Your task to perform on an android device: toggle notification dots Image 0: 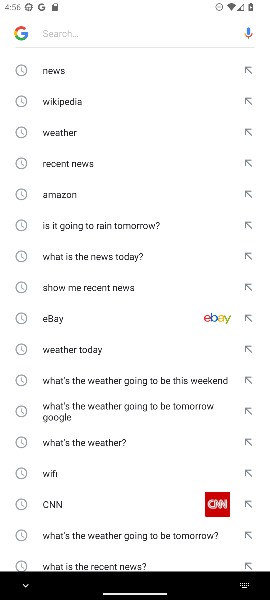
Step 0: drag from (103, 397) to (181, 577)
Your task to perform on an android device: toggle notification dots Image 1: 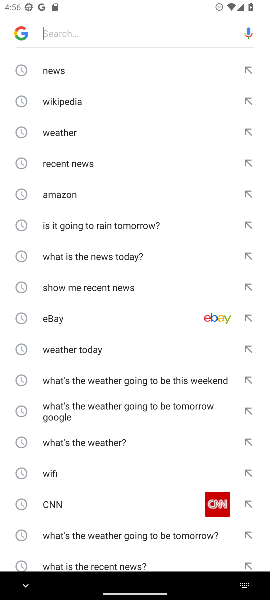
Step 1: press home button
Your task to perform on an android device: toggle notification dots Image 2: 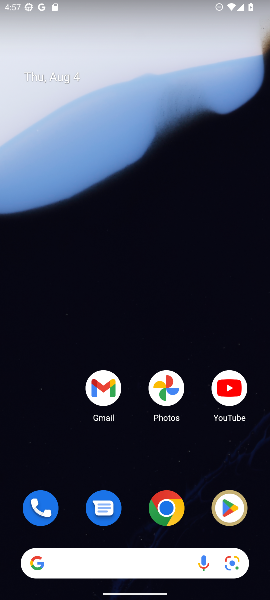
Step 2: drag from (64, 456) to (180, 0)
Your task to perform on an android device: toggle notification dots Image 3: 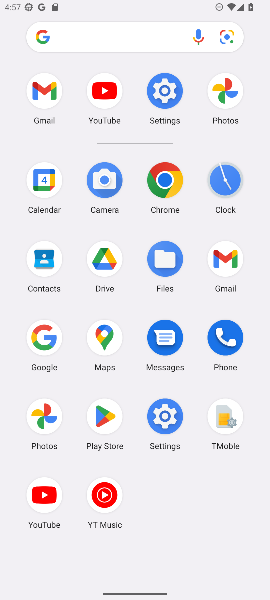
Step 3: click (163, 84)
Your task to perform on an android device: toggle notification dots Image 4: 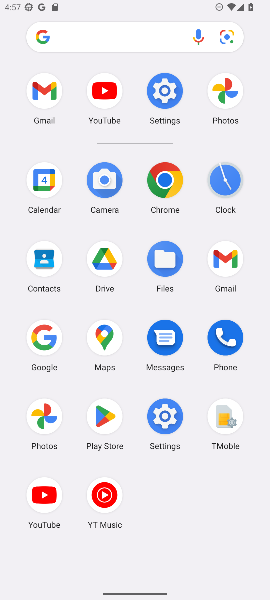
Step 4: click (163, 84)
Your task to perform on an android device: toggle notification dots Image 5: 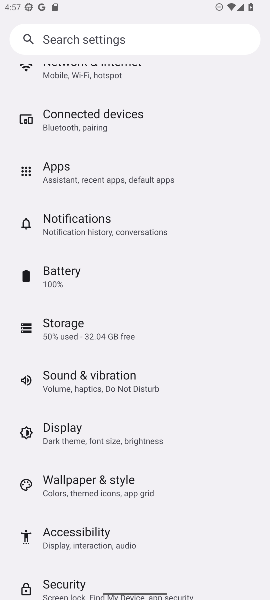
Step 5: press home button
Your task to perform on an android device: toggle notification dots Image 6: 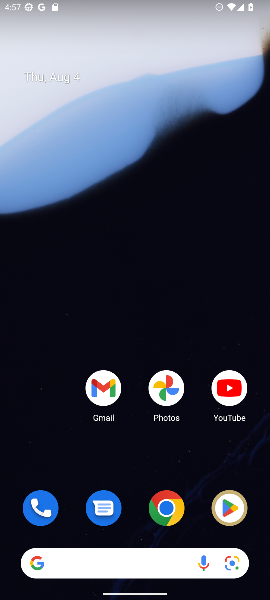
Step 6: drag from (134, 497) to (170, 96)
Your task to perform on an android device: toggle notification dots Image 7: 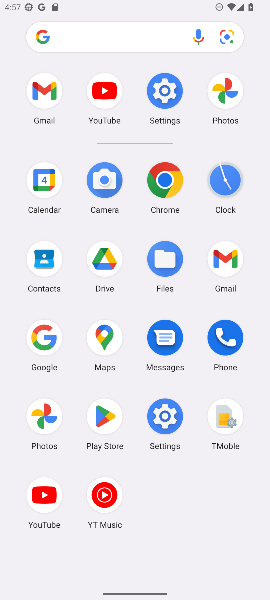
Step 7: click (161, 94)
Your task to perform on an android device: toggle notification dots Image 8: 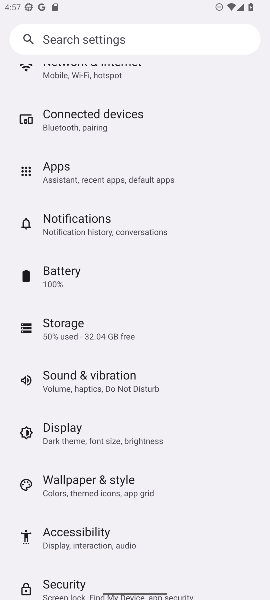
Step 8: click (100, 238)
Your task to perform on an android device: toggle notification dots Image 9: 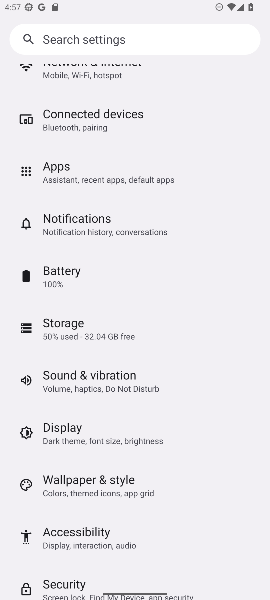
Step 9: click (98, 236)
Your task to perform on an android device: toggle notification dots Image 10: 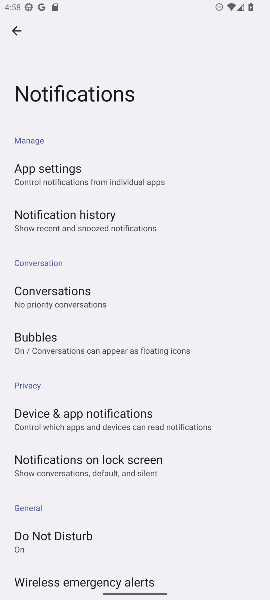
Step 10: drag from (114, 492) to (210, 130)
Your task to perform on an android device: toggle notification dots Image 11: 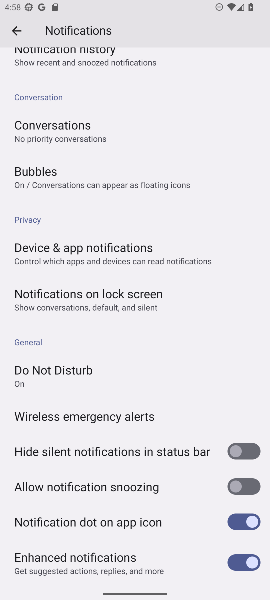
Step 11: drag from (138, 530) to (180, 315)
Your task to perform on an android device: toggle notification dots Image 12: 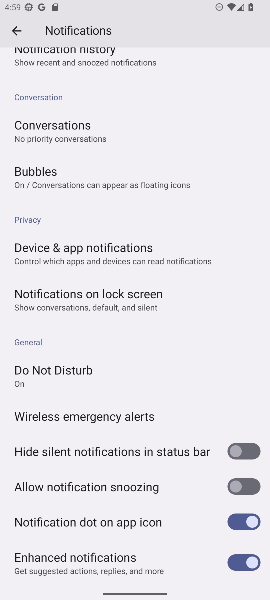
Step 12: click (240, 518)
Your task to perform on an android device: toggle notification dots Image 13: 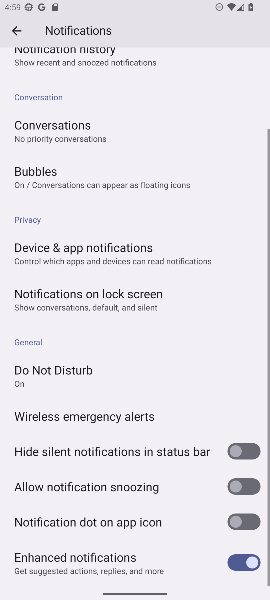
Step 13: task complete